Your task to perform on an android device: toggle translation in the chrome app Image 0: 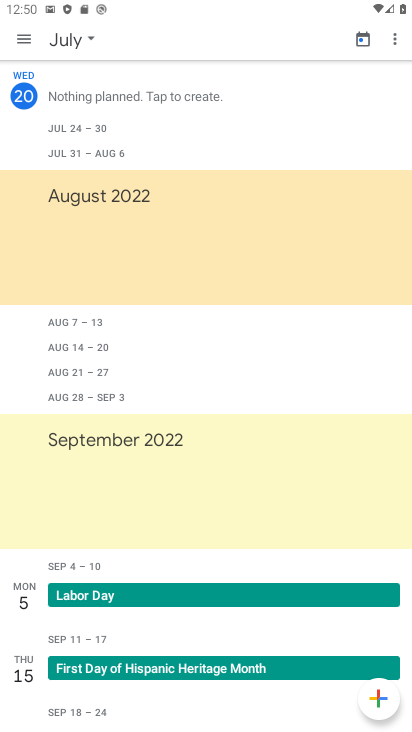
Step 0: press home button
Your task to perform on an android device: toggle translation in the chrome app Image 1: 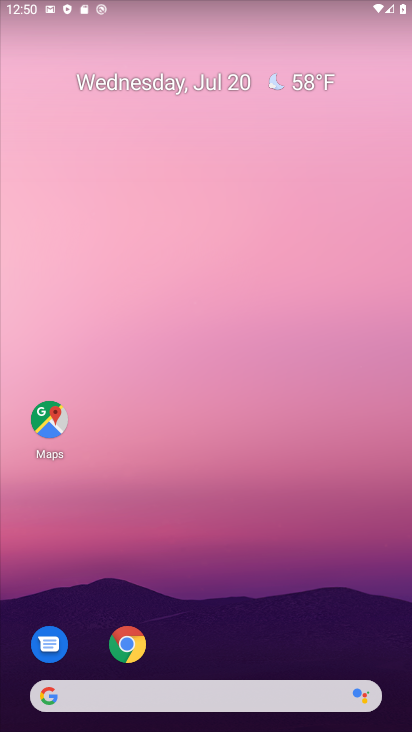
Step 1: click (126, 644)
Your task to perform on an android device: toggle translation in the chrome app Image 2: 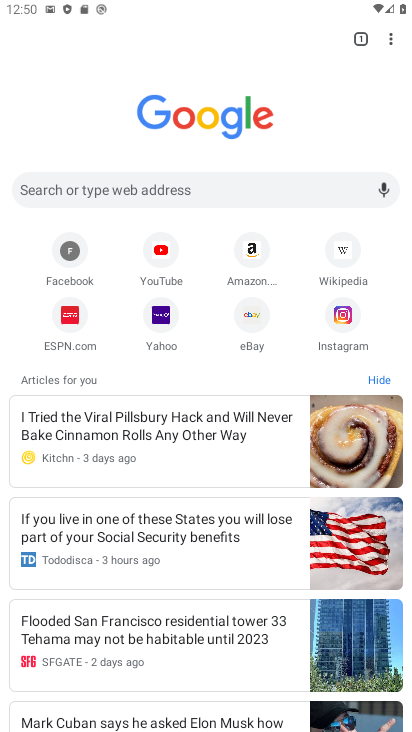
Step 2: click (385, 40)
Your task to perform on an android device: toggle translation in the chrome app Image 3: 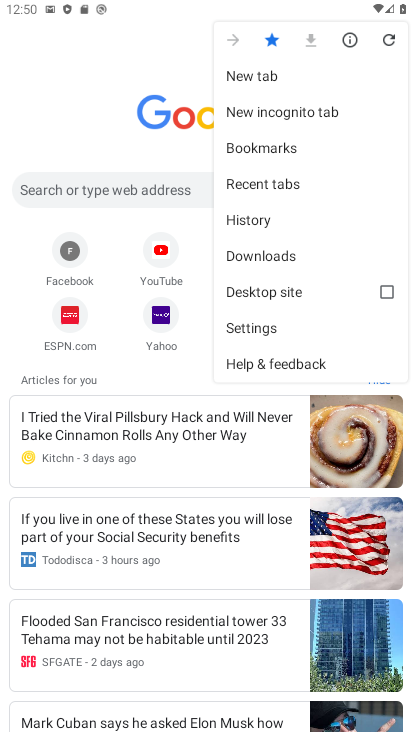
Step 3: click (258, 332)
Your task to perform on an android device: toggle translation in the chrome app Image 4: 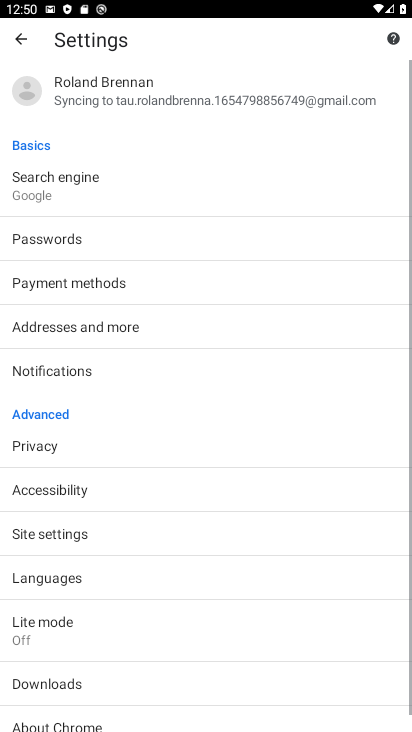
Step 4: click (55, 576)
Your task to perform on an android device: toggle translation in the chrome app Image 5: 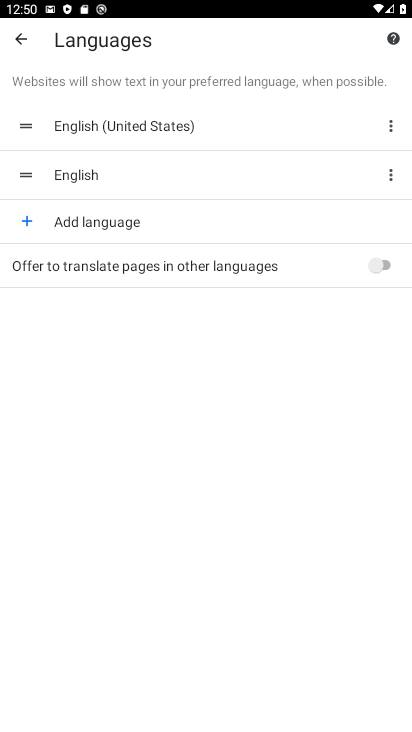
Step 5: click (383, 261)
Your task to perform on an android device: toggle translation in the chrome app Image 6: 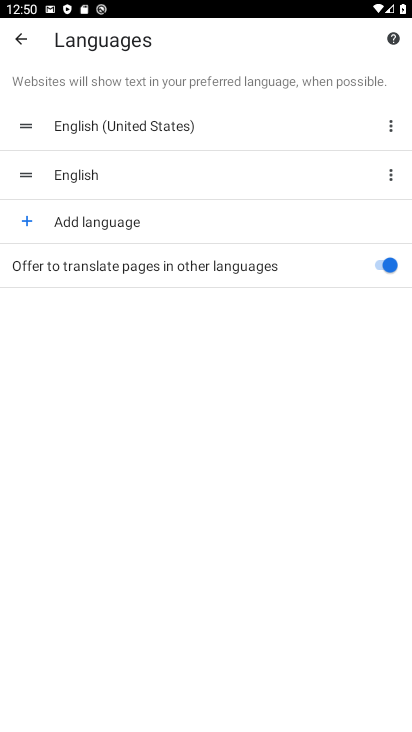
Step 6: task complete